Your task to perform on an android device: set the stopwatch Image 0: 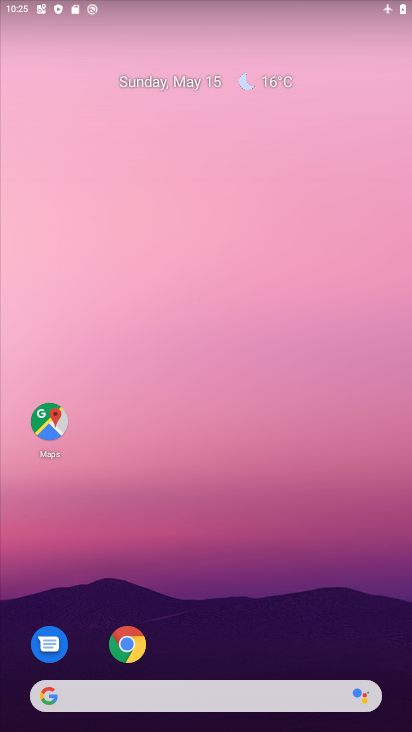
Step 0: drag from (265, 408) to (227, 49)
Your task to perform on an android device: set the stopwatch Image 1: 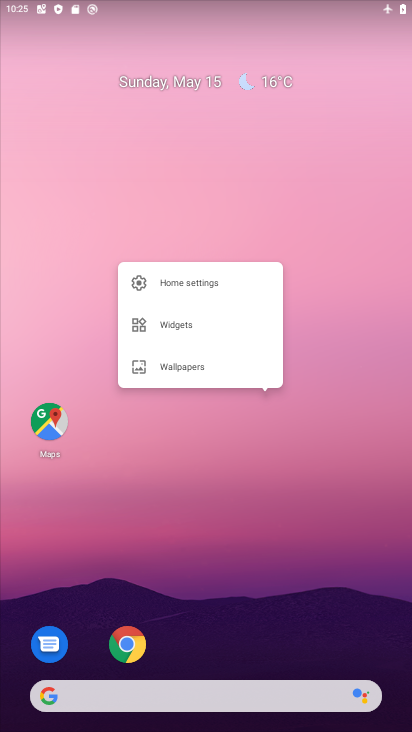
Step 1: drag from (252, 621) to (280, 194)
Your task to perform on an android device: set the stopwatch Image 2: 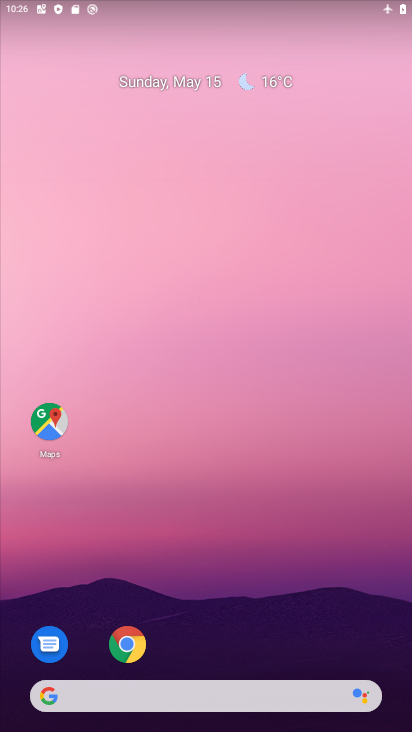
Step 2: drag from (313, 626) to (288, 103)
Your task to perform on an android device: set the stopwatch Image 3: 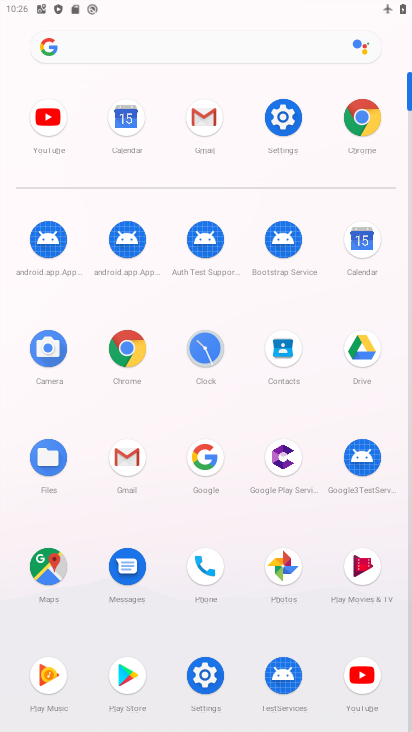
Step 3: drag from (210, 633) to (277, 86)
Your task to perform on an android device: set the stopwatch Image 4: 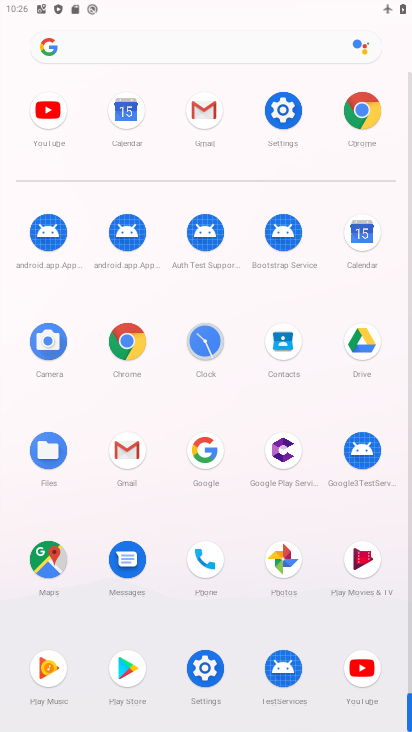
Step 4: click (205, 341)
Your task to perform on an android device: set the stopwatch Image 5: 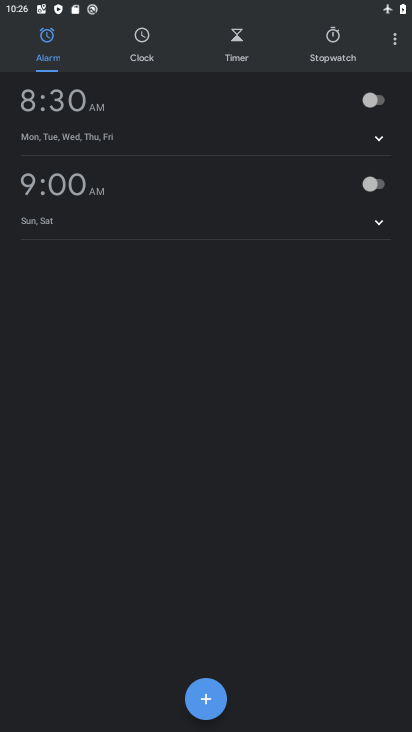
Step 5: click (336, 45)
Your task to perform on an android device: set the stopwatch Image 6: 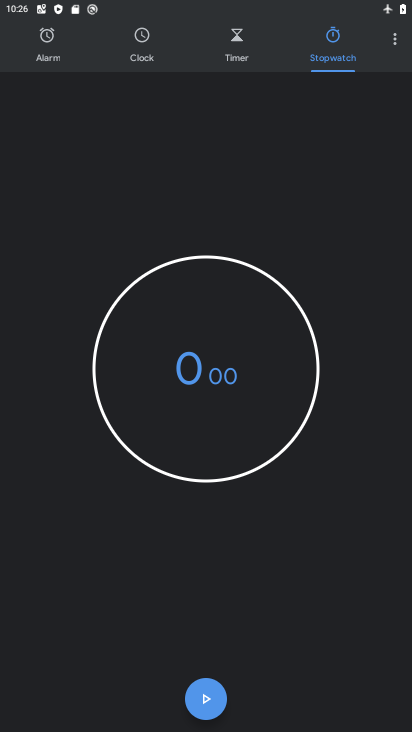
Step 6: task complete